Your task to perform on an android device: Go to sound settings Image 0: 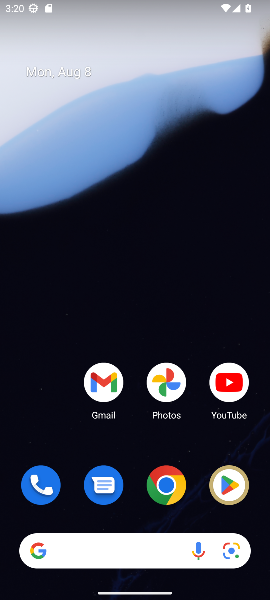
Step 0: drag from (163, 544) to (109, 155)
Your task to perform on an android device: Go to sound settings Image 1: 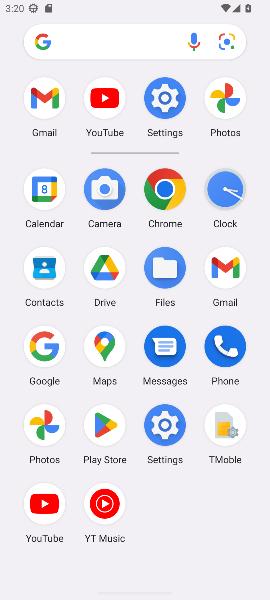
Step 1: drag from (160, 440) to (110, 70)
Your task to perform on an android device: Go to sound settings Image 2: 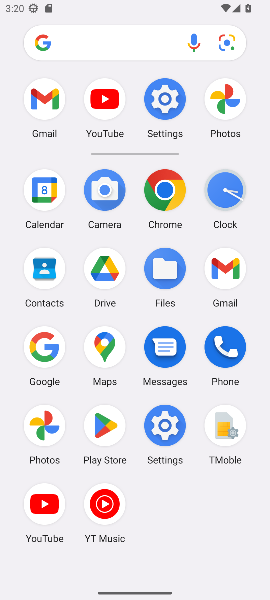
Step 2: click (173, 423)
Your task to perform on an android device: Go to sound settings Image 3: 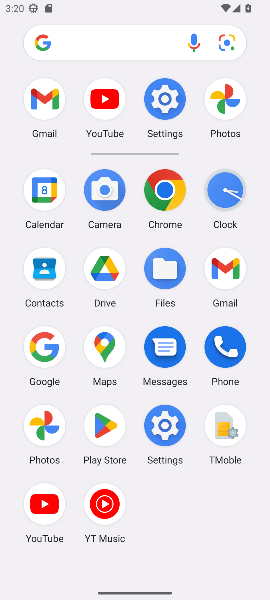
Step 3: click (169, 426)
Your task to perform on an android device: Go to sound settings Image 4: 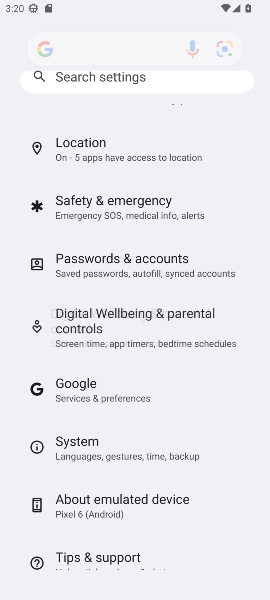
Step 4: click (168, 426)
Your task to perform on an android device: Go to sound settings Image 5: 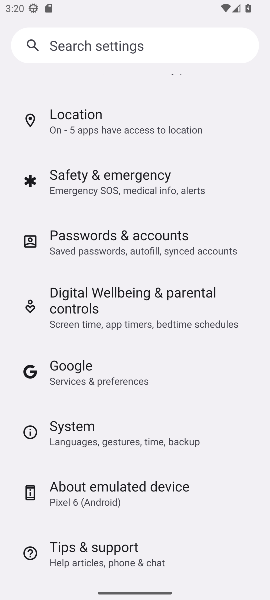
Step 5: drag from (114, 428) to (84, 215)
Your task to perform on an android device: Go to sound settings Image 6: 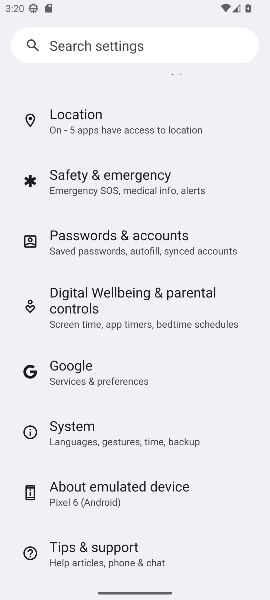
Step 6: drag from (97, 448) to (78, 90)
Your task to perform on an android device: Go to sound settings Image 7: 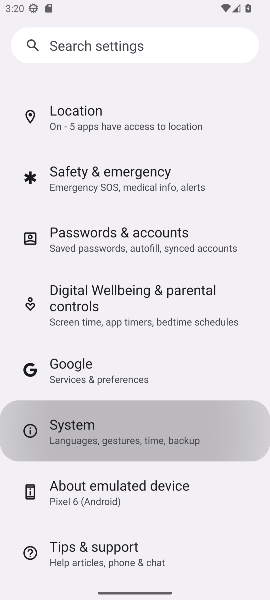
Step 7: drag from (164, 392) to (164, 120)
Your task to perform on an android device: Go to sound settings Image 8: 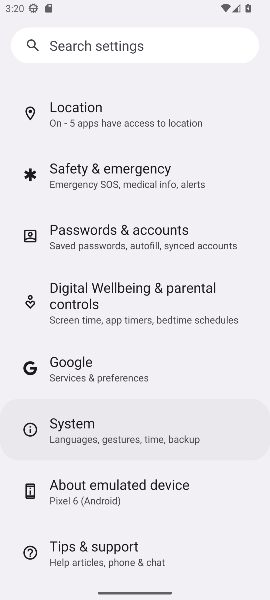
Step 8: drag from (118, 422) to (87, 166)
Your task to perform on an android device: Go to sound settings Image 9: 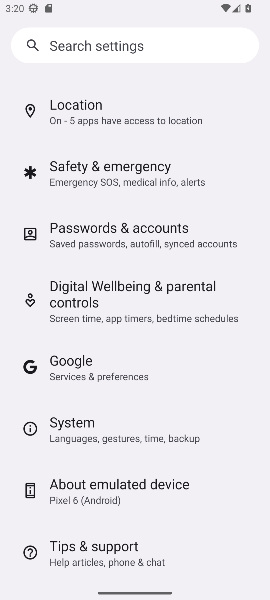
Step 9: drag from (82, 483) to (76, 173)
Your task to perform on an android device: Go to sound settings Image 10: 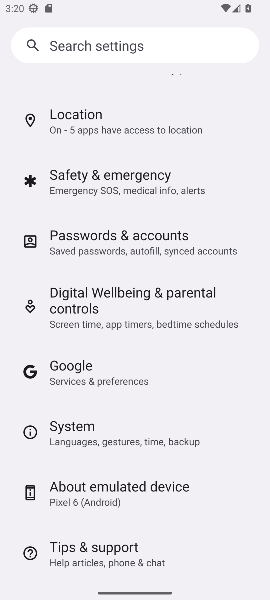
Step 10: drag from (102, 142) to (96, 104)
Your task to perform on an android device: Go to sound settings Image 11: 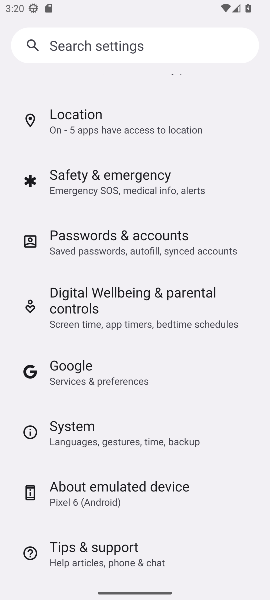
Step 11: drag from (102, 343) to (78, 118)
Your task to perform on an android device: Go to sound settings Image 12: 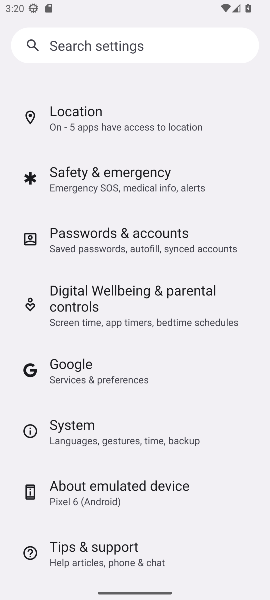
Step 12: drag from (74, 416) to (88, 196)
Your task to perform on an android device: Go to sound settings Image 13: 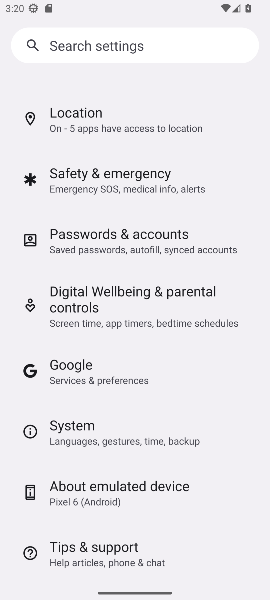
Step 13: drag from (131, 406) to (142, 187)
Your task to perform on an android device: Go to sound settings Image 14: 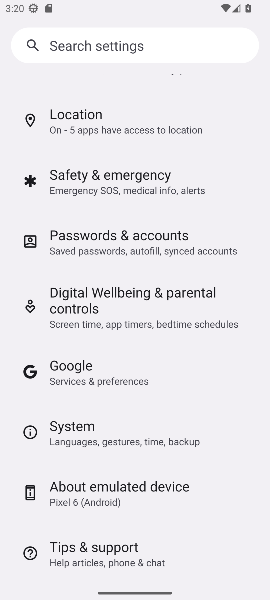
Step 14: drag from (35, 260) to (35, 189)
Your task to perform on an android device: Go to sound settings Image 15: 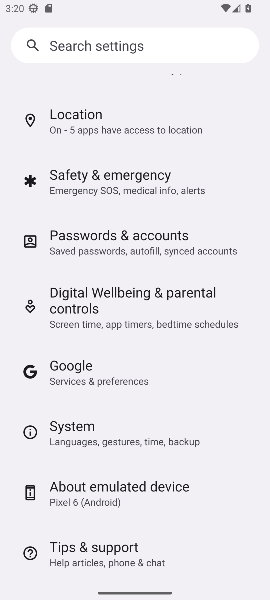
Step 15: drag from (94, 453) to (94, 170)
Your task to perform on an android device: Go to sound settings Image 16: 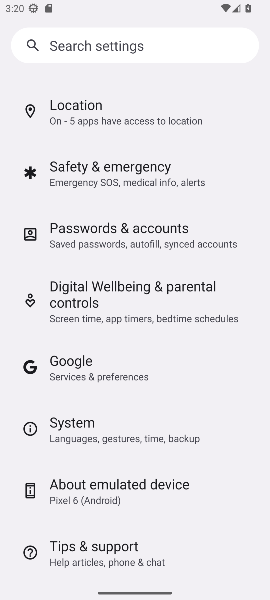
Step 16: drag from (194, 525) to (228, 240)
Your task to perform on an android device: Go to sound settings Image 17: 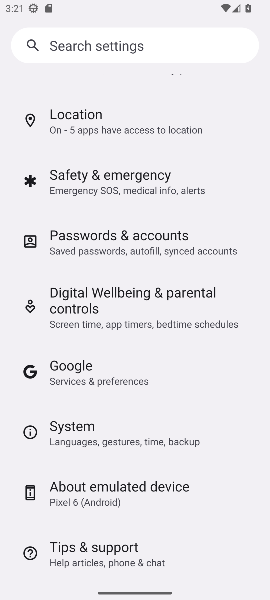
Step 17: drag from (121, 366) to (146, 414)
Your task to perform on an android device: Go to sound settings Image 18: 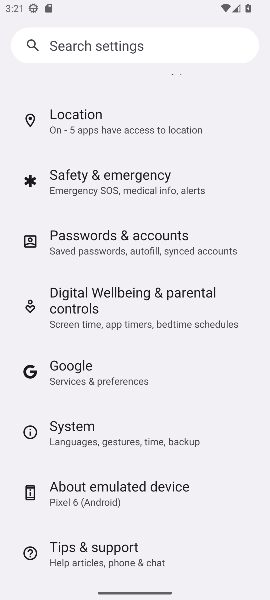
Step 18: drag from (138, 236) to (149, 470)
Your task to perform on an android device: Go to sound settings Image 19: 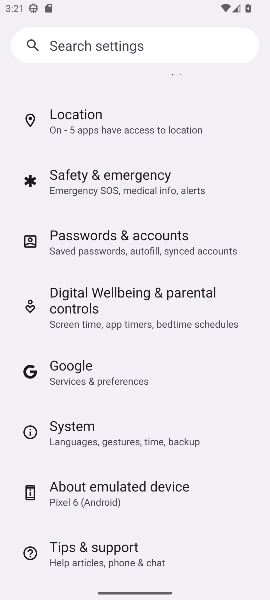
Step 19: press back button
Your task to perform on an android device: Go to sound settings Image 20: 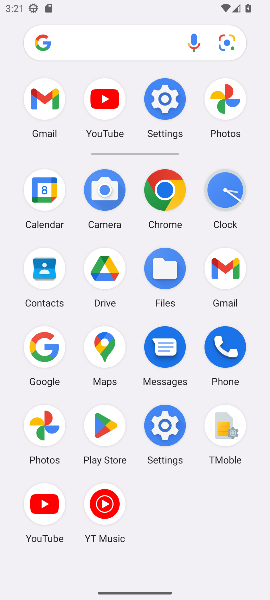
Step 20: click (169, 192)
Your task to perform on an android device: Go to sound settings Image 21: 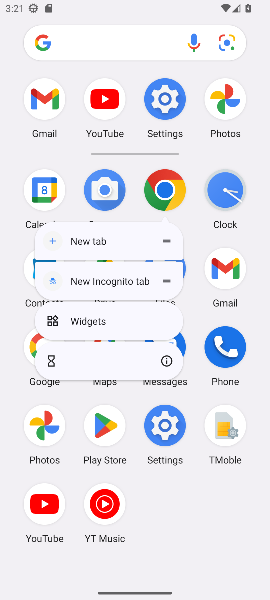
Step 21: click (156, 111)
Your task to perform on an android device: Go to sound settings Image 22: 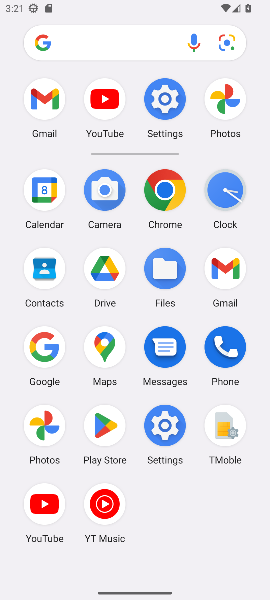
Step 22: click (158, 109)
Your task to perform on an android device: Go to sound settings Image 23: 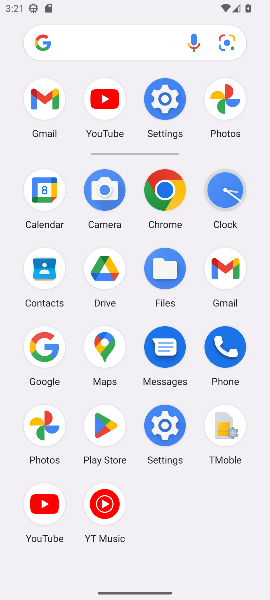
Step 23: click (158, 109)
Your task to perform on an android device: Go to sound settings Image 24: 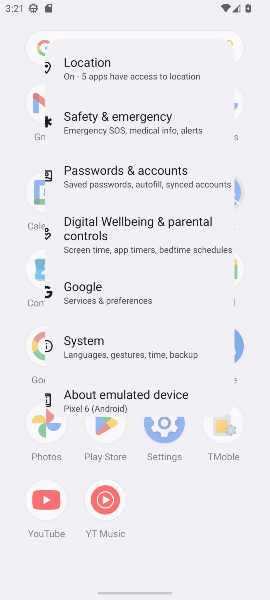
Step 24: click (164, 96)
Your task to perform on an android device: Go to sound settings Image 25: 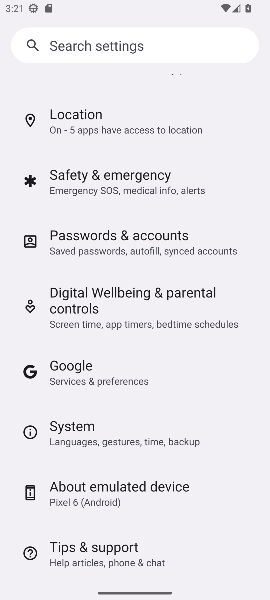
Step 25: click (172, 113)
Your task to perform on an android device: Go to sound settings Image 26: 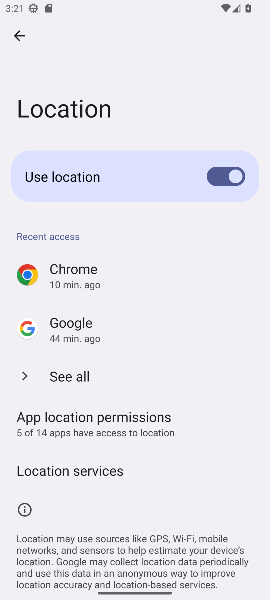
Step 26: drag from (107, 513) to (62, 69)
Your task to perform on an android device: Go to sound settings Image 27: 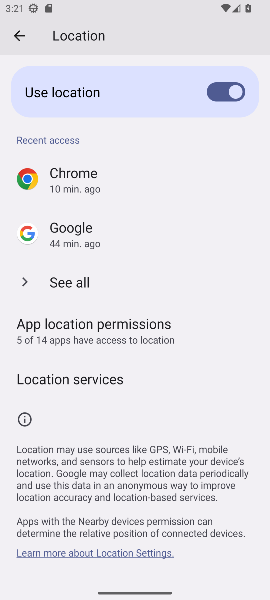
Step 27: drag from (125, 423) to (125, 201)
Your task to perform on an android device: Go to sound settings Image 28: 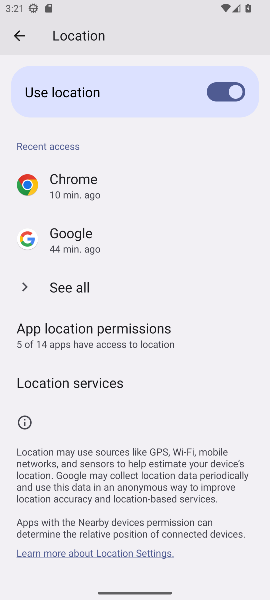
Step 28: drag from (129, 441) to (95, 146)
Your task to perform on an android device: Go to sound settings Image 29: 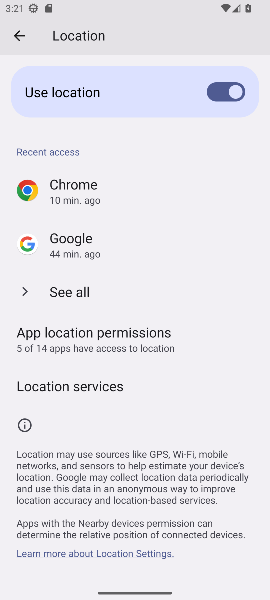
Step 29: click (67, 385)
Your task to perform on an android device: Go to sound settings Image 30: 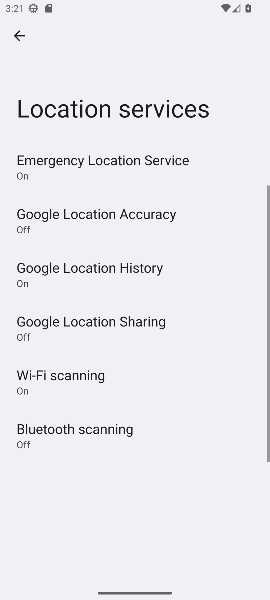
Step 30: click (19, 42)
Your task to perform on an android device: Go to sound settings Image 31: 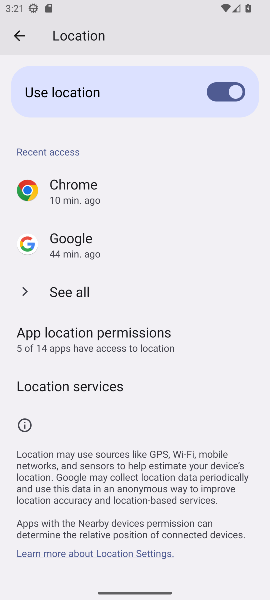
Step 31: click (14, 27)
Your task to perform on an android device: Go to sound settings Image 32: 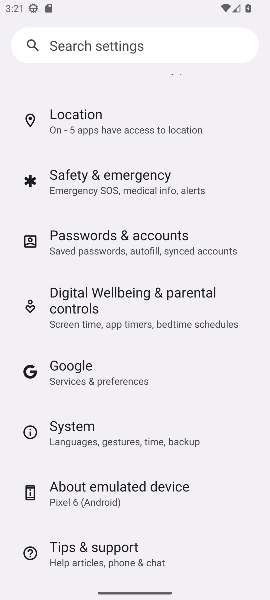
Step 32: drag from (137, 310) to (148, 437)
Your task to perform on an android device: Go to sound settings Image 33: 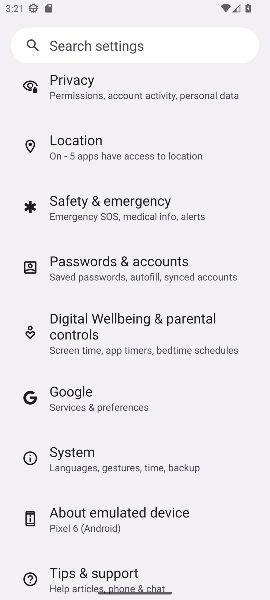
Step 33: drag from (99, 280) to (107, 532)
Your task to perform on an android device: Go to sound settings Image 34: 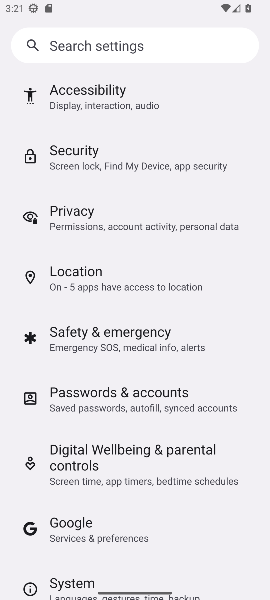
Step 34: drag from (62, 112) to (129, 515)
Your task to perform on an android device: Go to sound settings Image 35: 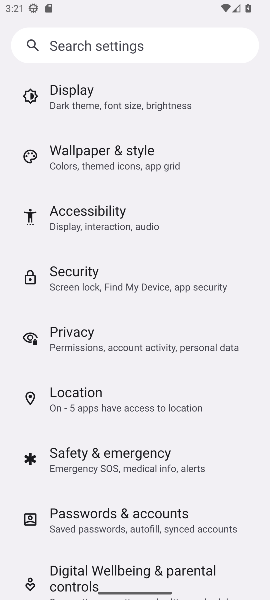
Step 35: drag from (80, 153) to (125, 426)
Your task to perform on an android device: Go to sound settings Image 36: 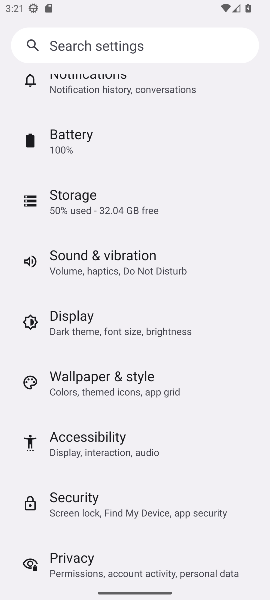
Step 36: drag from (73, 315) to (110, 545)
Your task to perform on an android device: Go to sound settings Image 37: 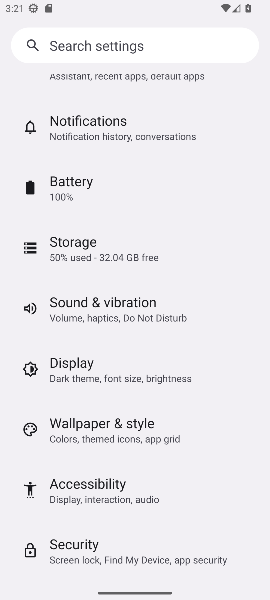
Step 37: drag from (97, 225) to (134, 567)
Your task to perform on an android device: Go to sound settings Image 38: 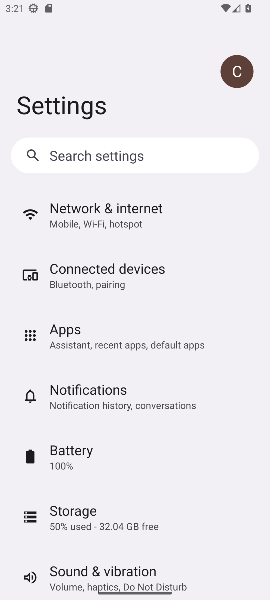
Step 38: drag from (84, 247) to (124, 434)
Your task to perform on an android device: Go to sound settings Image 39: 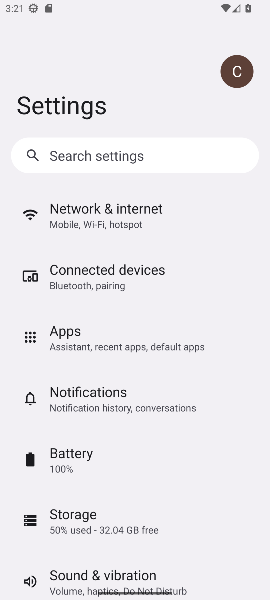
Step 39: drag from (75, 206) to (99, 370)
Your task to perform on an android device: Go to sound settings Image 40: 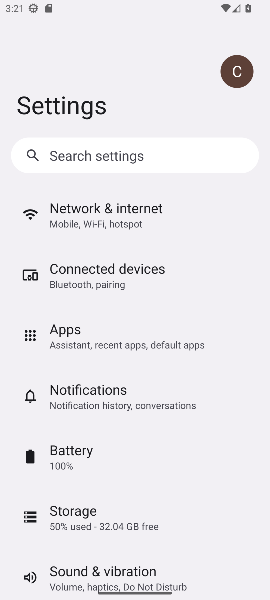
Step 40: click (84, 574)
Your task to perform on an android device: Go to sound settings Image 41: 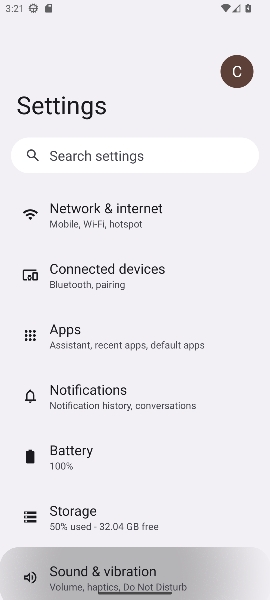
Step 41: click (78, 576)
Your task to perform on an android device: Go to sound settings Image 42: 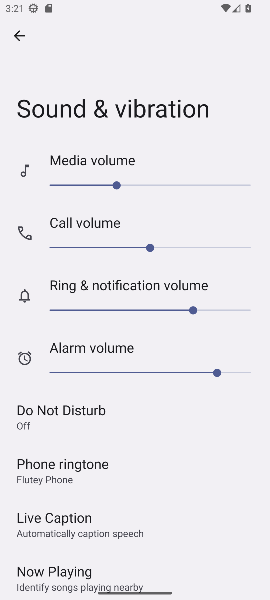
Step 42: click (20, 32)
Your task to perform on an android device: Go to sound settings Image 43: 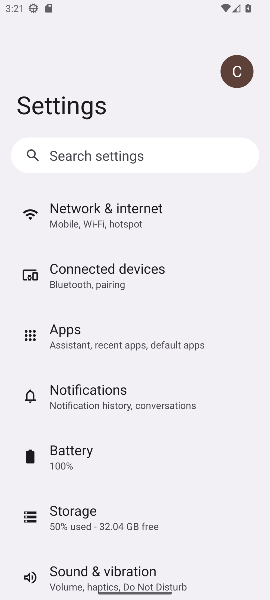
Step 43: press back button
Your task to perform on an android device: Go to sound settings Image 44: 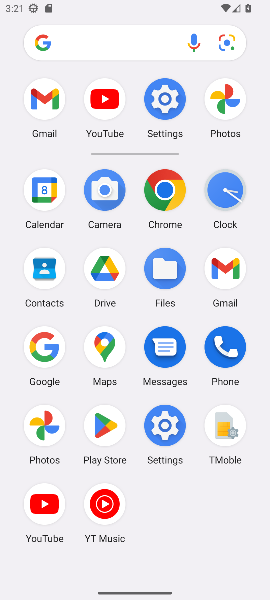
Step 44: click (156, 428)
Your task to perform on an android device: Go to sound settings Image 45: 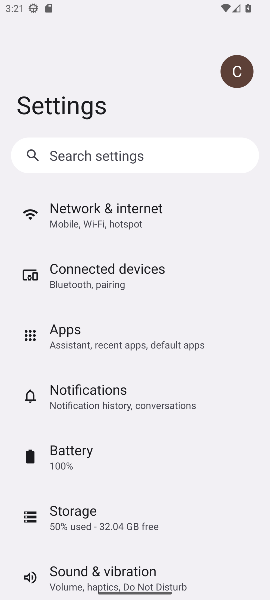
Step 45: click (66, 570)
Your task to perform on an android device: Go to sound settings Image 46: 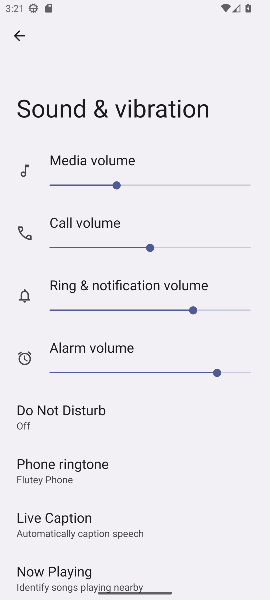
Step 46: task complete